Your task to perform on an android device: allow notifications from all sites in the chrome app Image 0: 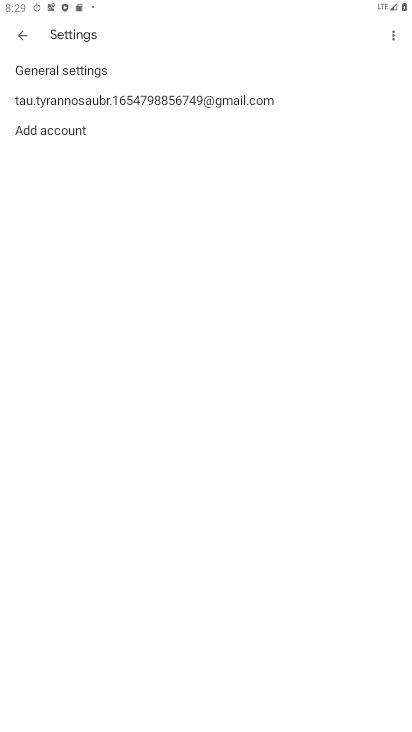
Step 0: press home button
Your task to perform on an android device: allow notifications from all sites in the chrome app Image 1: 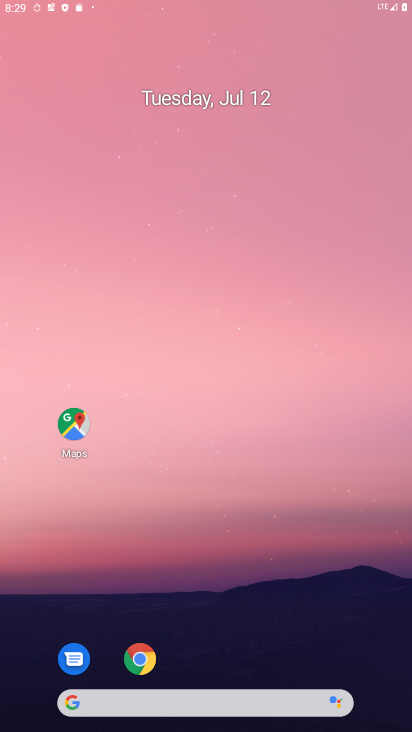
Step 1: drag from (371, 682) to (186, 36)
Your task to perform on an android device: allow notifications from all sites in the chrome app Image 2: 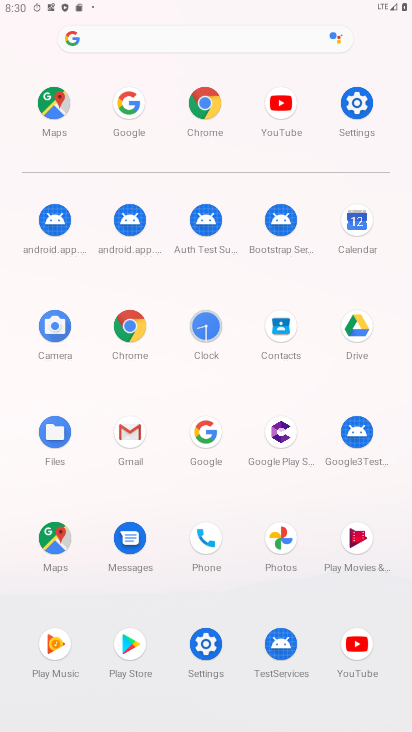
Step 2: click (201, 92)
Your task to perform on an android device: allow notifications from all sites in the chrome app Image 3: 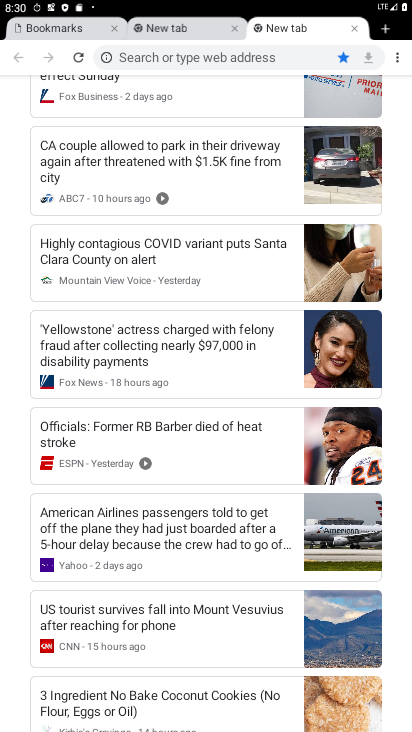
Step 3: click (401, 53)
Your task to perform on an android device: allow notifications from all sites in the chrome app Image 4: 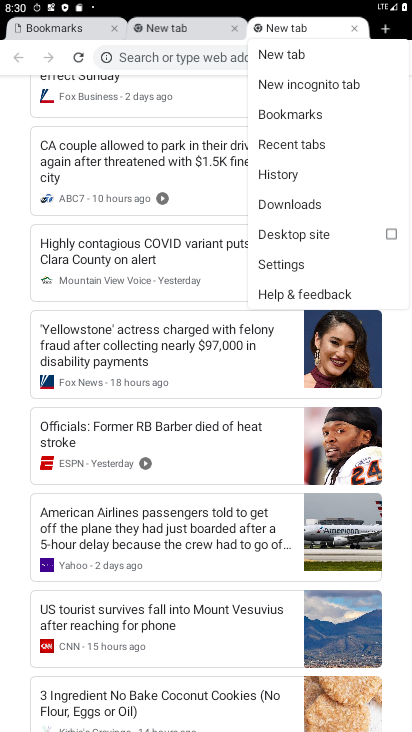
Step 4: click (271, 256)
Your task to perform on an android device: allow notifications from all sites in the chrome app Image 5: 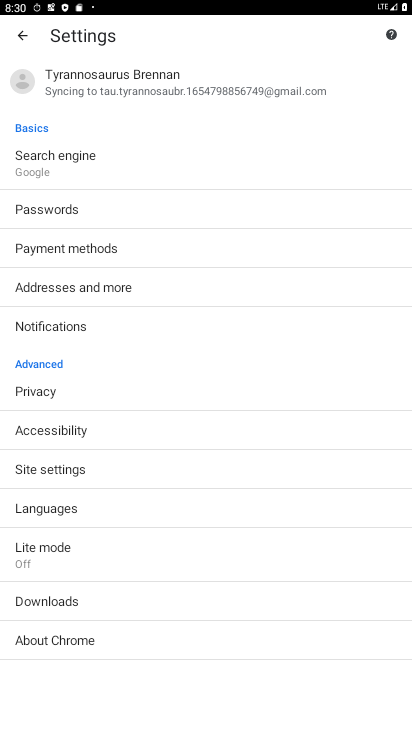
Step 5: click (70, 329)
Your task to perform on an android device: allow notifications from all sites in the chrome app Image 6: 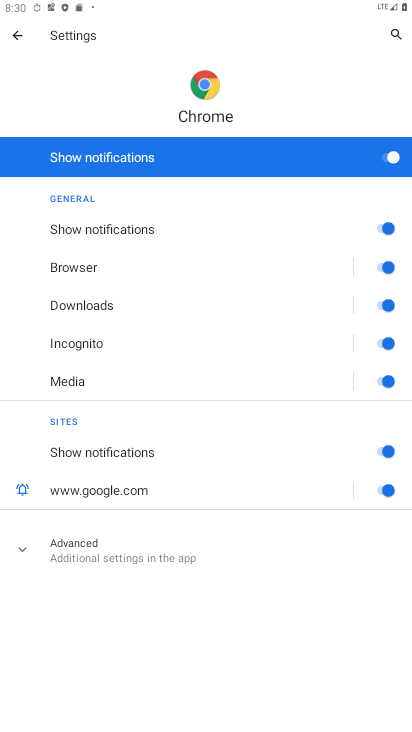
Step 6: task complete